Your task to perform on an android device: turn on translation in the chrome app Image 0: 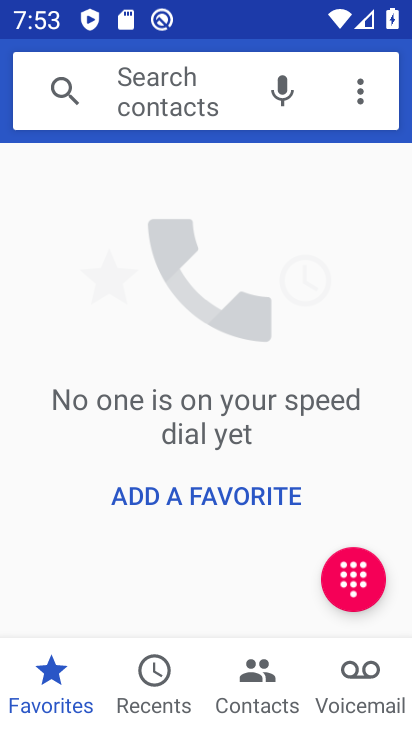
Step 0: press home button
Your task to perform on an android device: turn on translation in the chrome app Image 1: 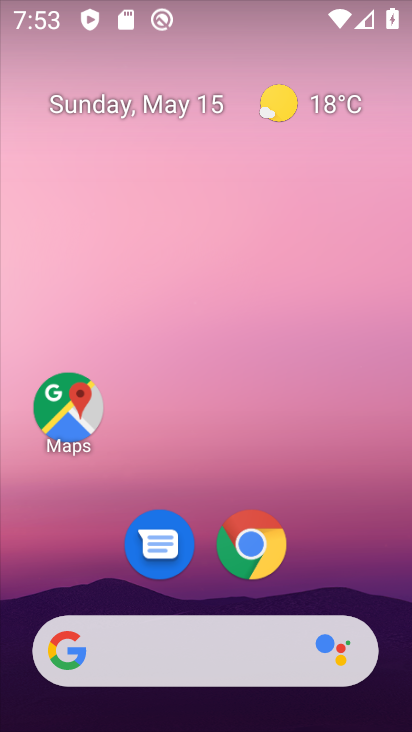
Step 1: click (245, 551)
Your task to perform on an android device: turn on translation in the chrome app Image 2: 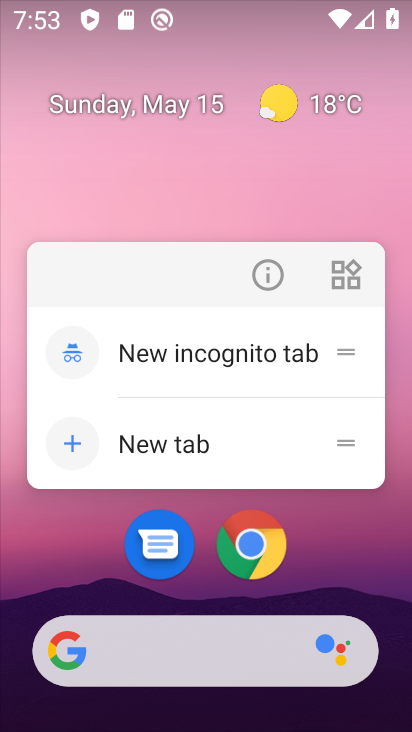
Step 2: click (277, 541)
Your task to perform on an android device: turn on translation in the chrome app Image 3: 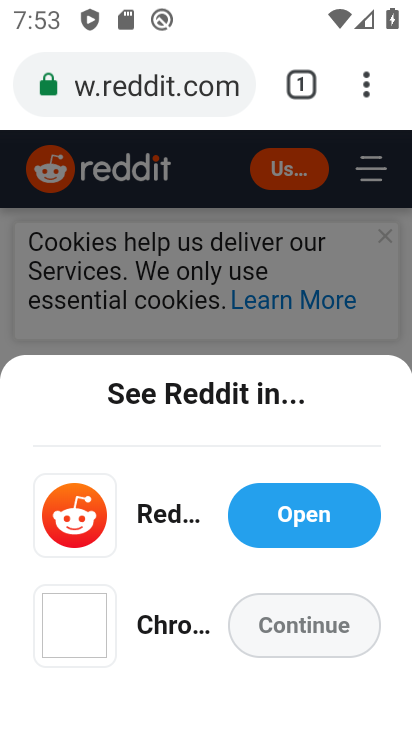
Step 3: click (379, 76)
Your task to perform on an android device: turn on translation in the chrome app Image 4: 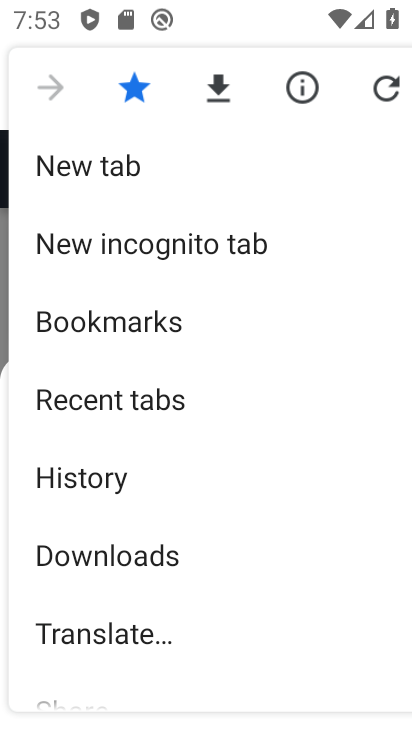
Step 4: drag from (213, 608) to (260, 123)
Your task to perform on an android device: turn on translation in the chrome app Image 5: 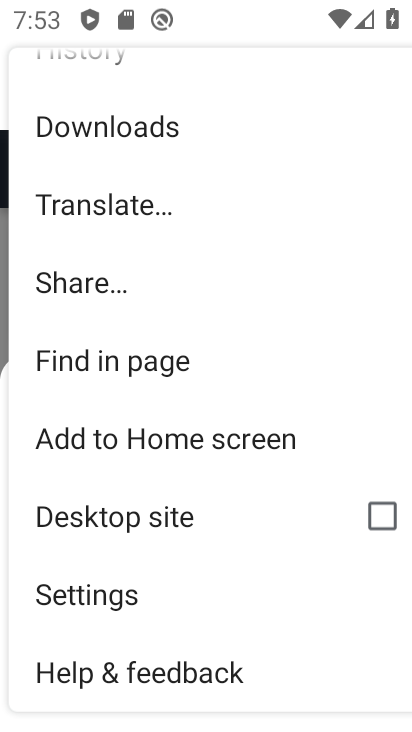
Step 5: click (169, 616)
Your task to perform on an android device: turn on translation in the chrome app Image 6: 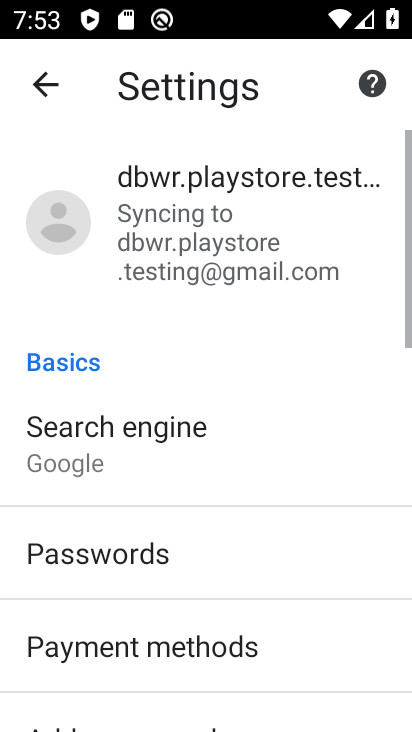
Step 6: drag from (169, 616) to (174, 91)
Your task to perform on an android device: turn on translation in the chrome app Image 7: 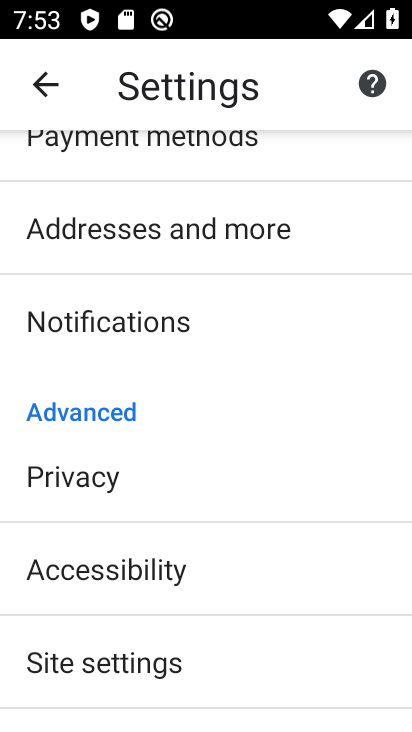
Step 7: drag from (116, 629) to (135, 234)
Your task to perform on an android device: turn on translation in the chrome app Image 8: 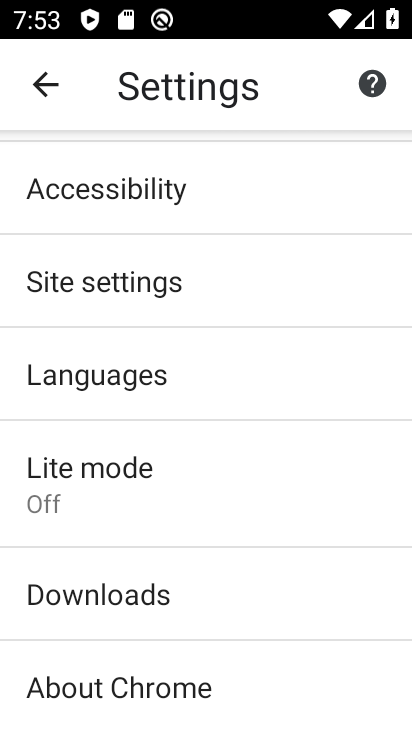
Step 8: click (135, 376)
Your task to perform on an android device: turn on translation in the chrome app Image 9: 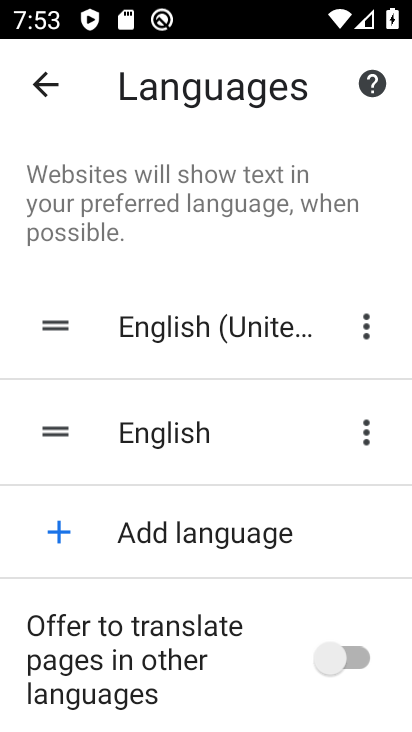
Step 9: click (325, 665)
Your task to perform on an android device: turn on translation in the chrome app Image 10: 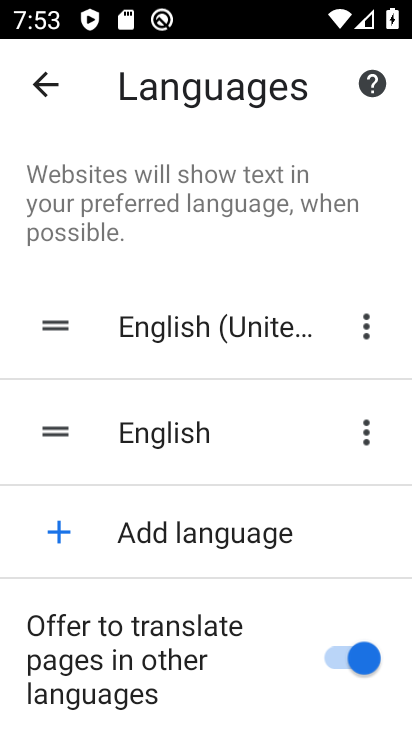
Step 10: task complete